Your task to perform on an android device: turn on airplane mode Image 0: 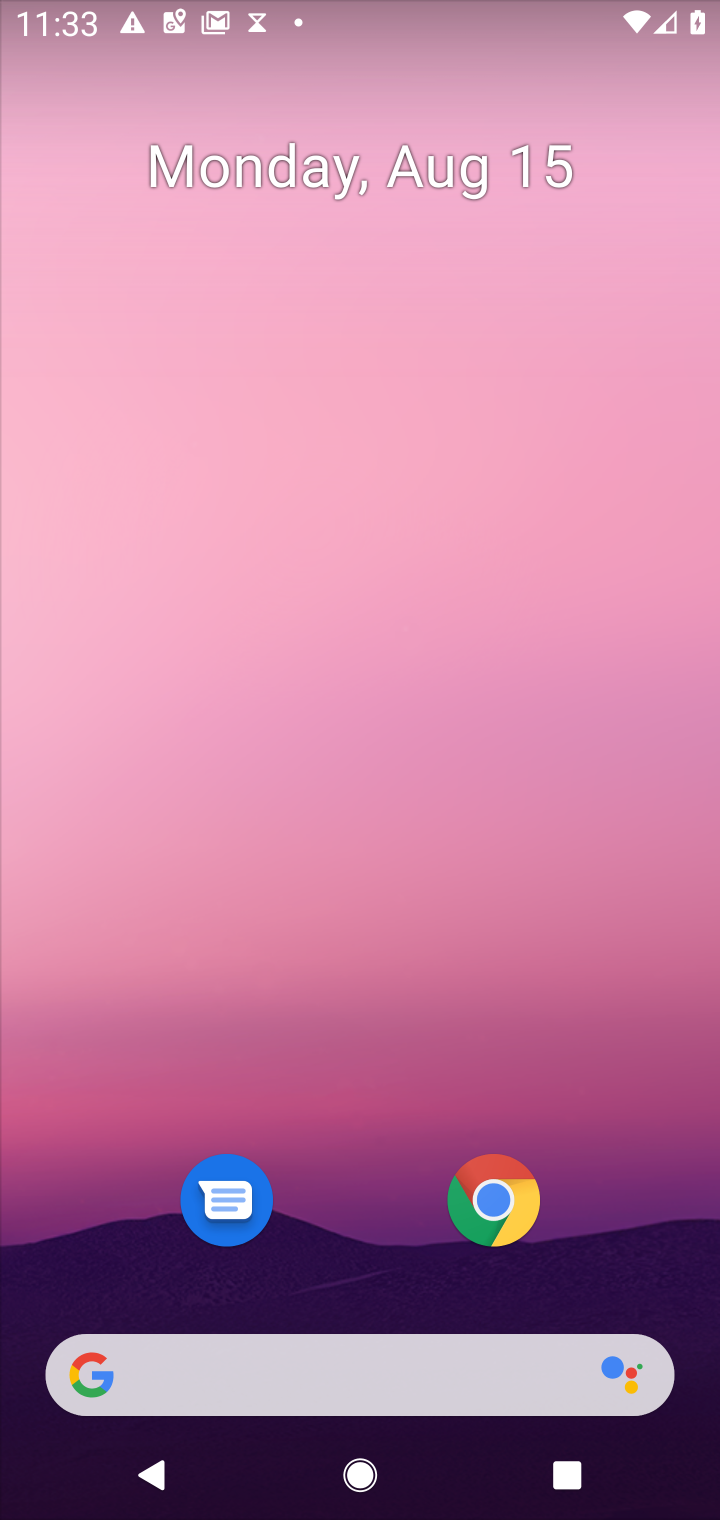
Step 0: drag from (396, 1224) to (391, 377)
Your task to perform on an android device: turn on airplane mode Image 1: 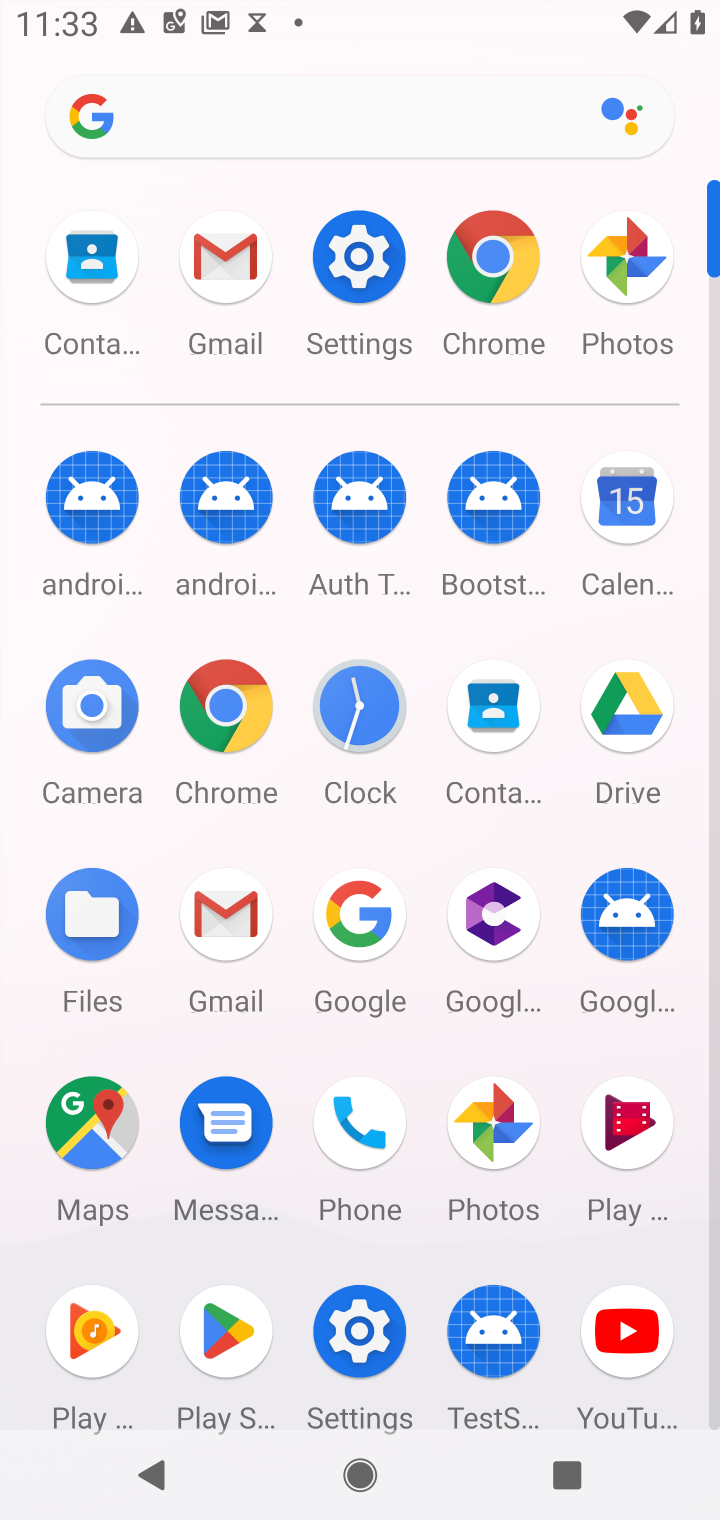
Step 1: click (370, 258)
Your task to perform on an android device: turn on airplane mode Image 2: 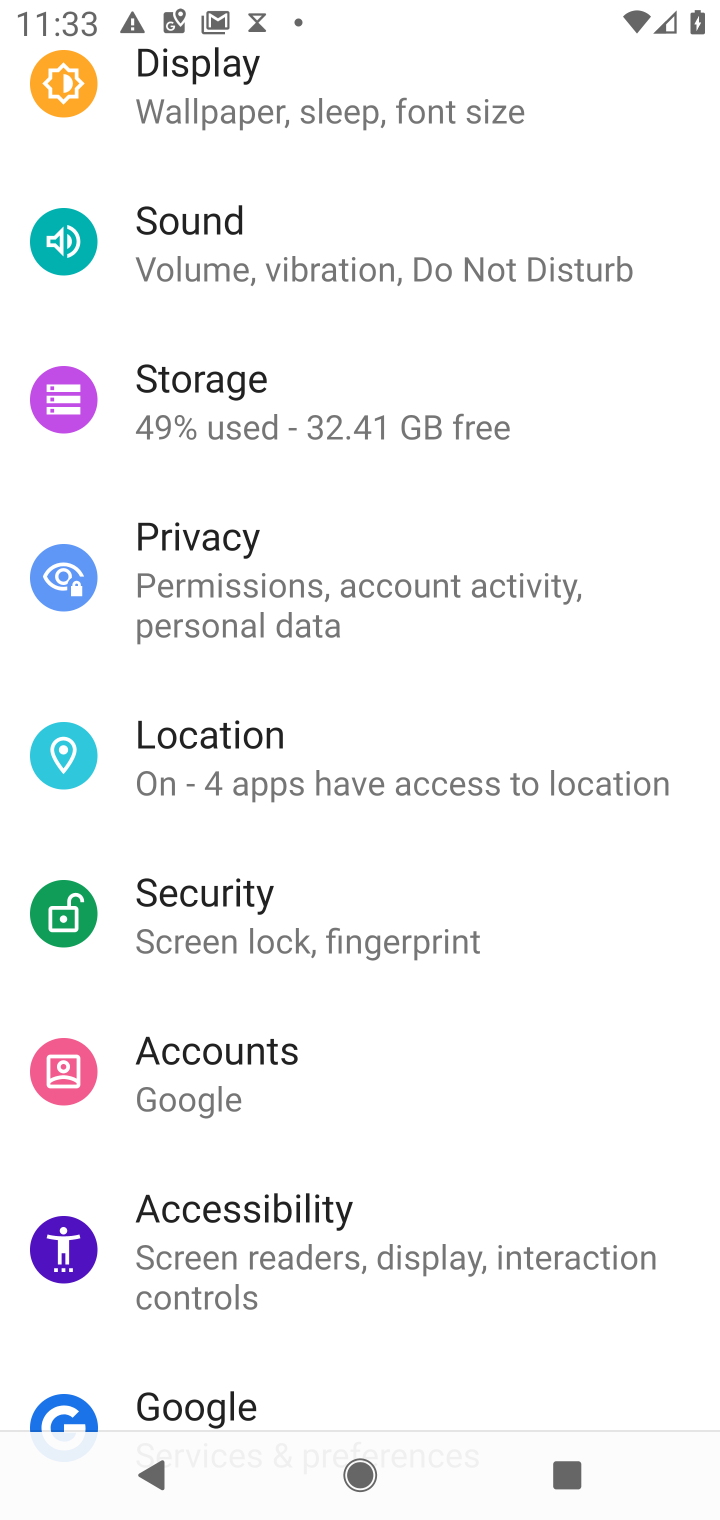
Step 2: drag from (377, 306) to (515, 1058)
Your task to perform on an android device: turn on airplane mode Image 3: 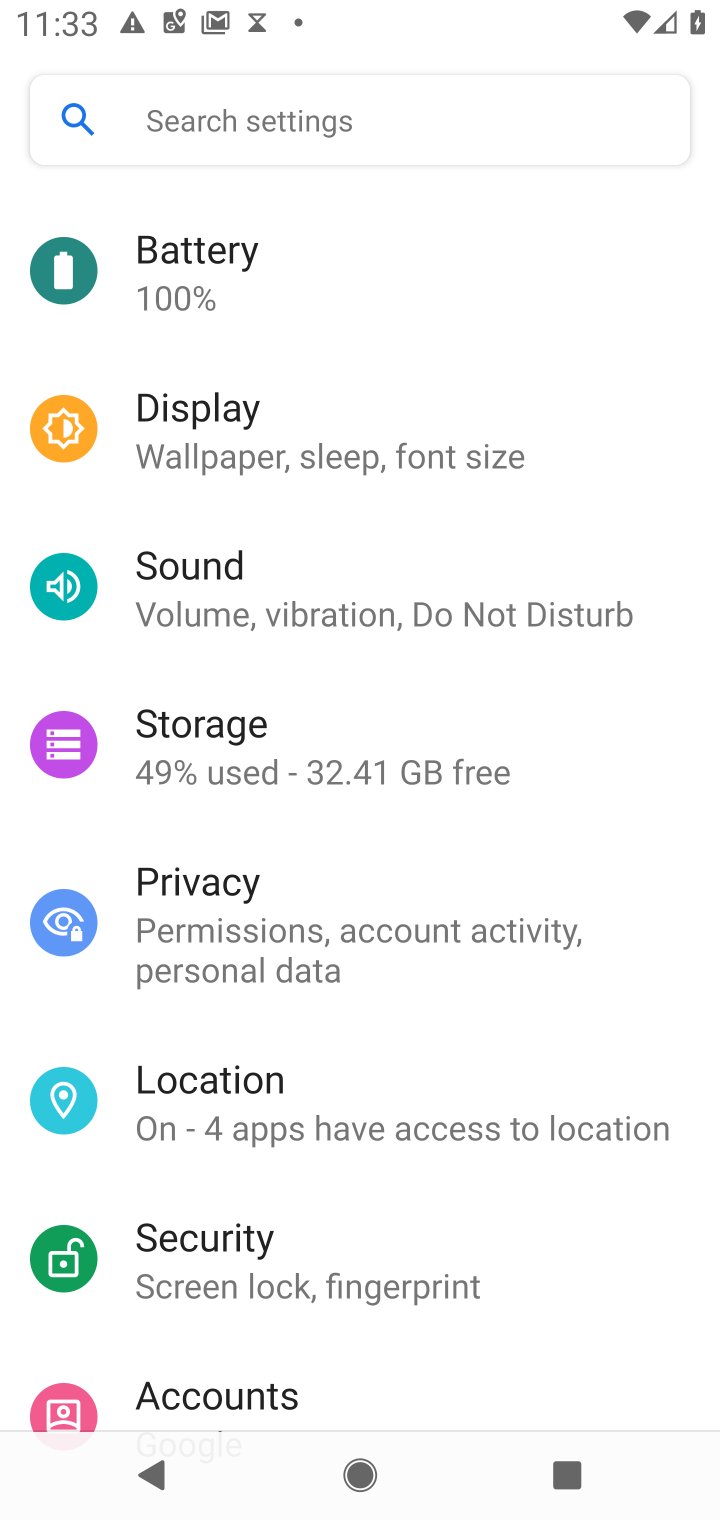
Step 3: drag from (336, 365) to (426, 1075)
Your task to perform on an android device: turn on airplane mode Image 4: 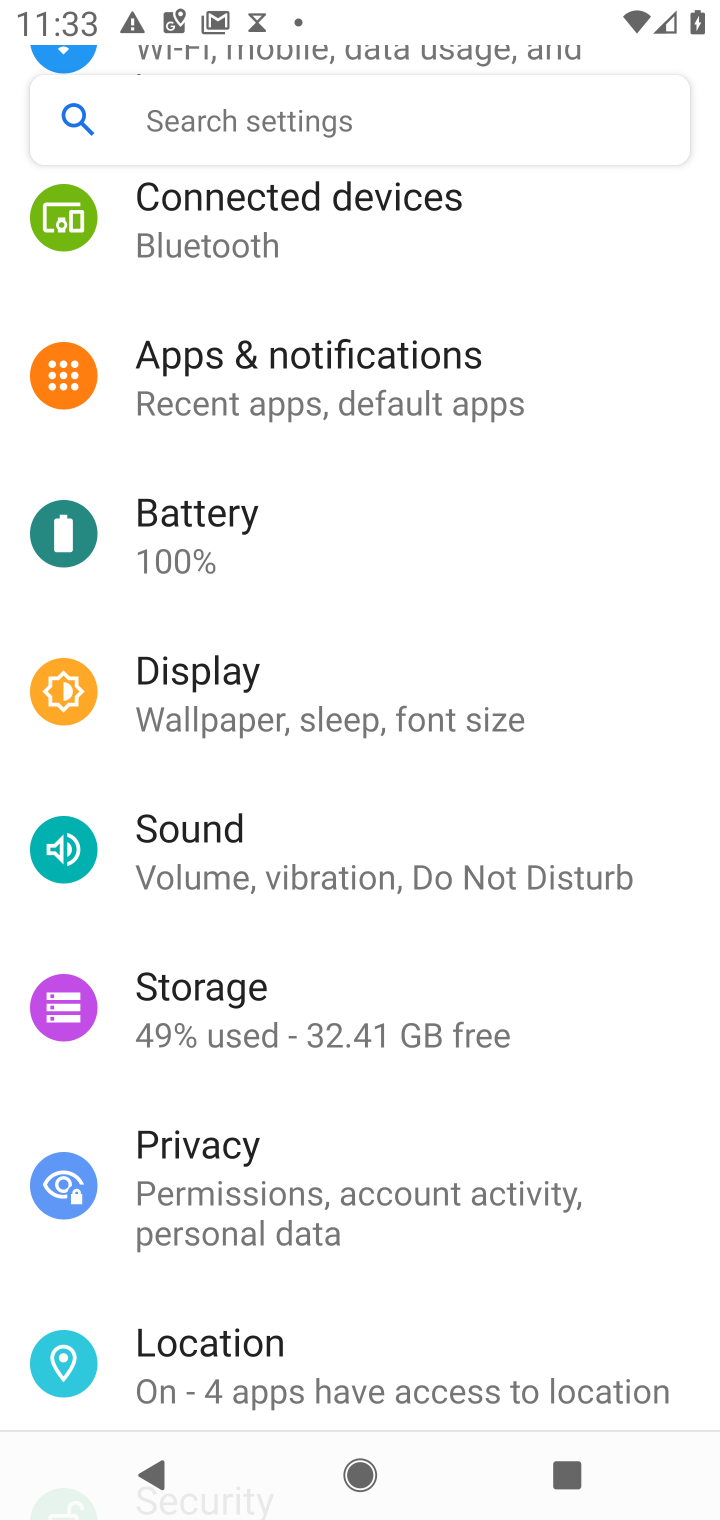
Step 4: drag from (364, 460) to (402, 1025)
Your task to perform on an android device: turn on airplane mode Image 5: 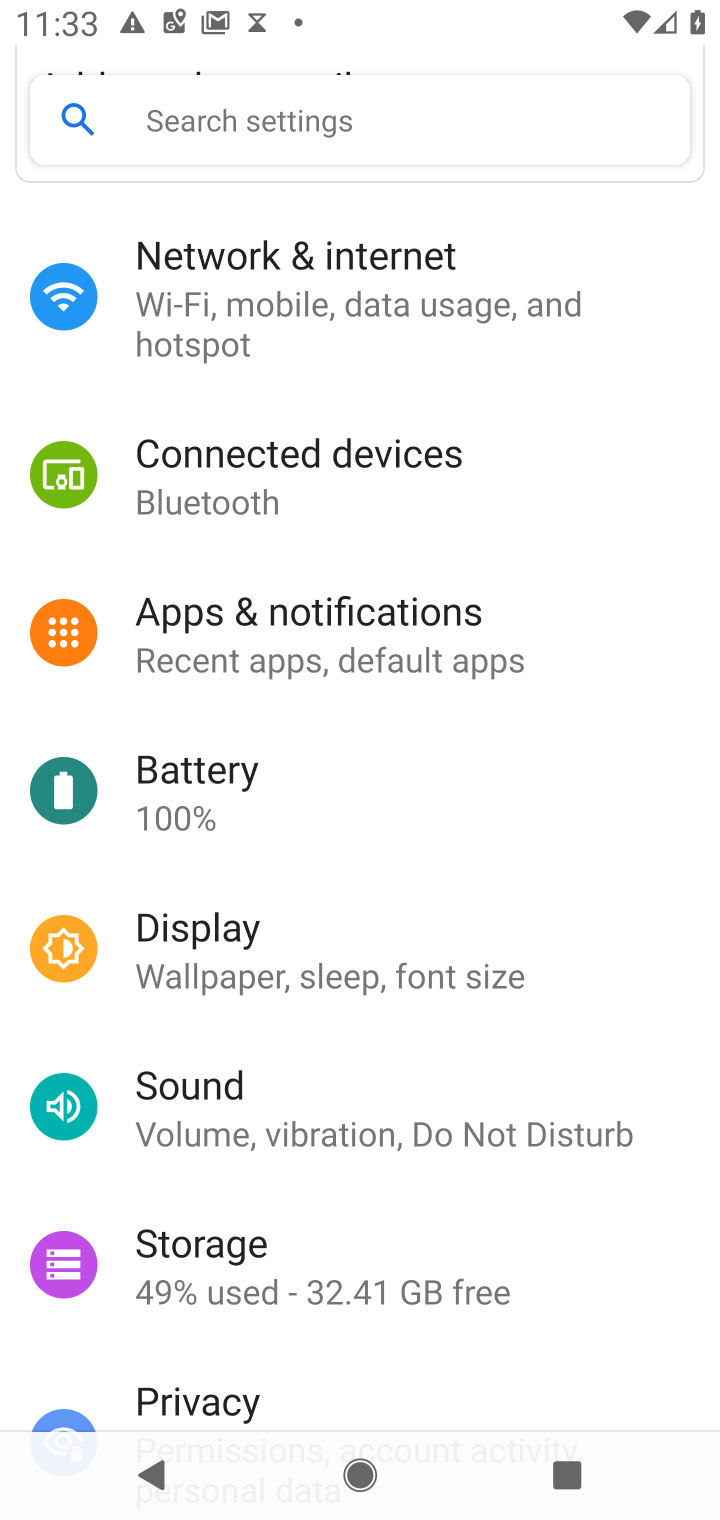
Step 5: click (268, 327)
Your task to perform on an android device: turn on airplane mode Image 6: 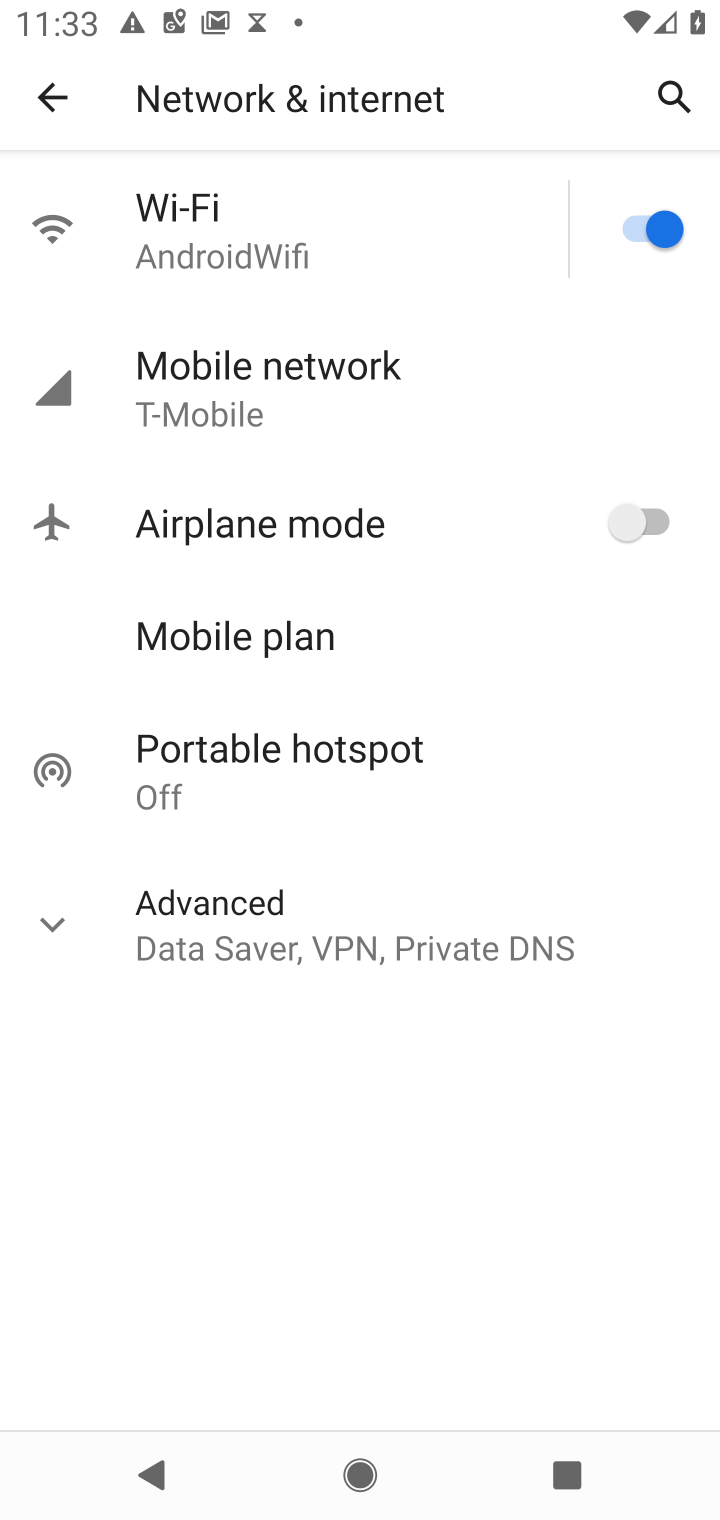
Step 6: click (663, 532)
Your task to perform on an android device: turn on airplane mode Image 7: 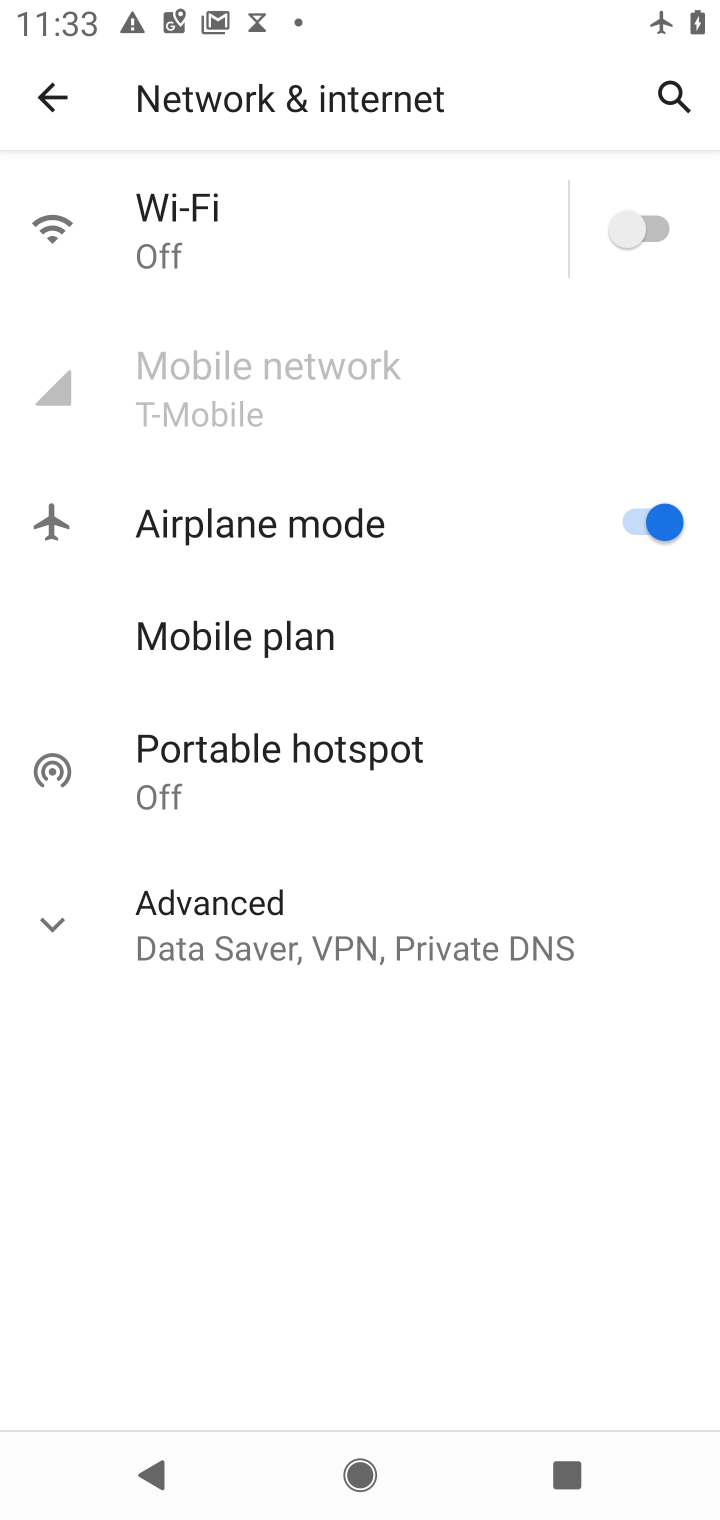
Step 7: task complete